Your task to perform on an android device: Open network settings Image 0: 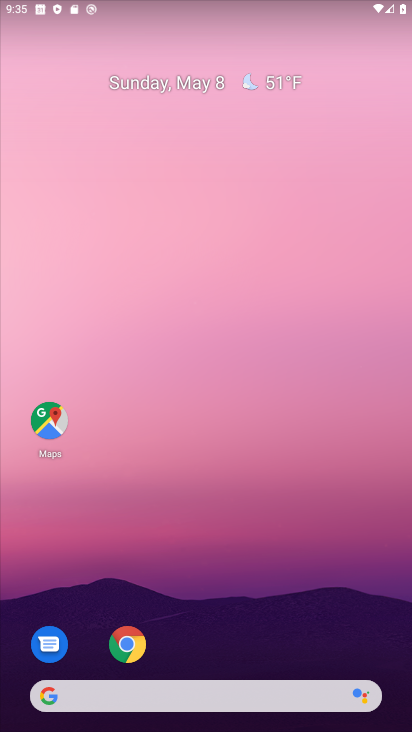
Step 0: drag from (181, 622) to (259, 236)
Your task to perform on an android device: Open network settings Image 1: 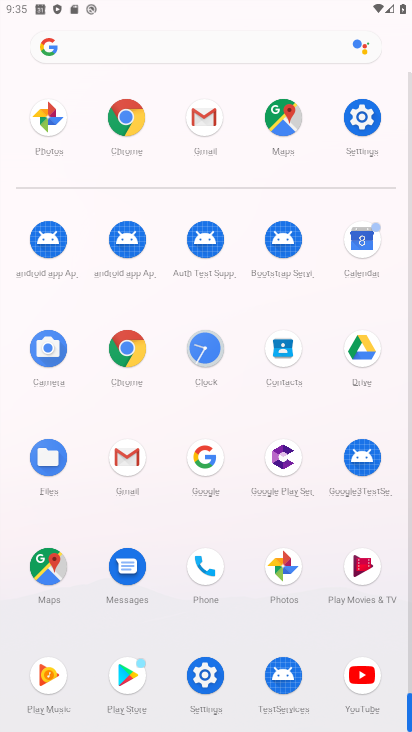
Step 1: click (207, 677)
Your task to perform on an android device: Open network settings Image 2: 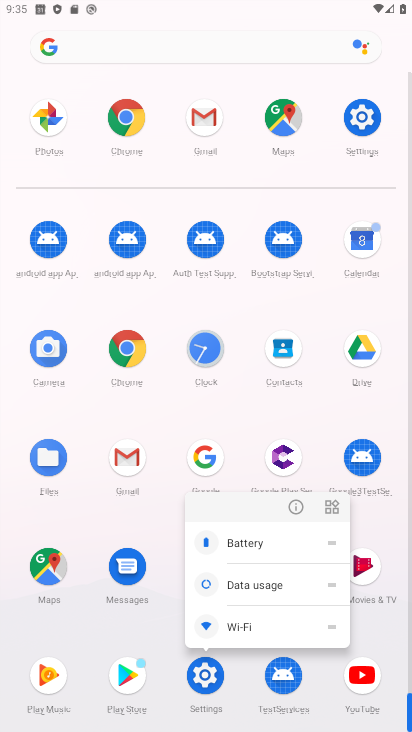
Step 2: click (297, 501)
Your task to perform on an android device: Open network settings Image 3: 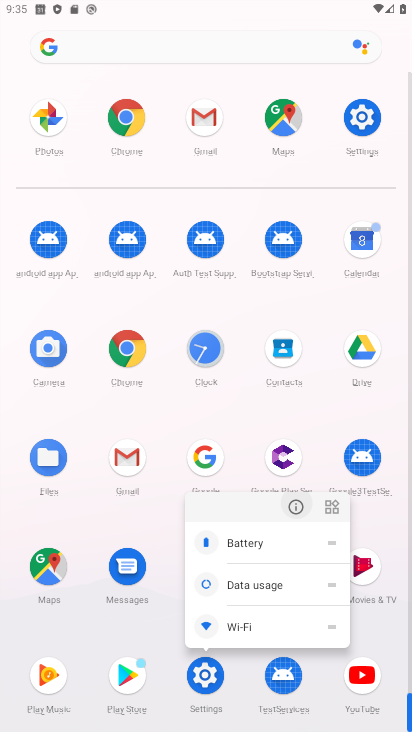
Step 3: click (297, 501)
Your task to perform on an android device: Open network settings Image 4: 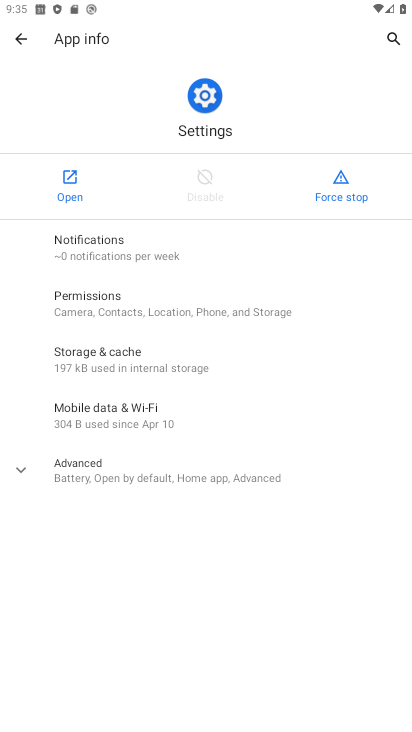
Step 4: click (60, 185)
Your task to perform on an android device: Open network settings Image 5: 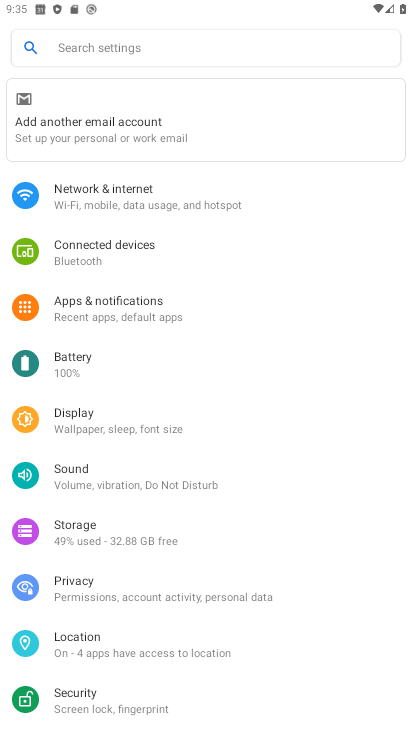
Step 5: click (146, 204)
Your task to perform on an android device: Open network settings Image 6: 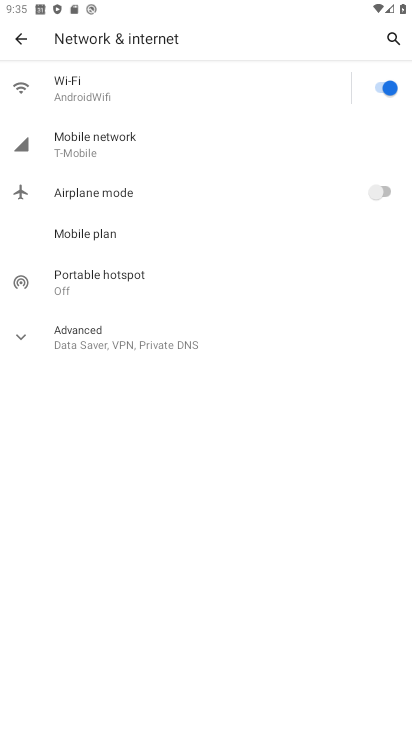
Step 6: click (122, 143)
Your task to perform on an android device: Open network settings Image 7: 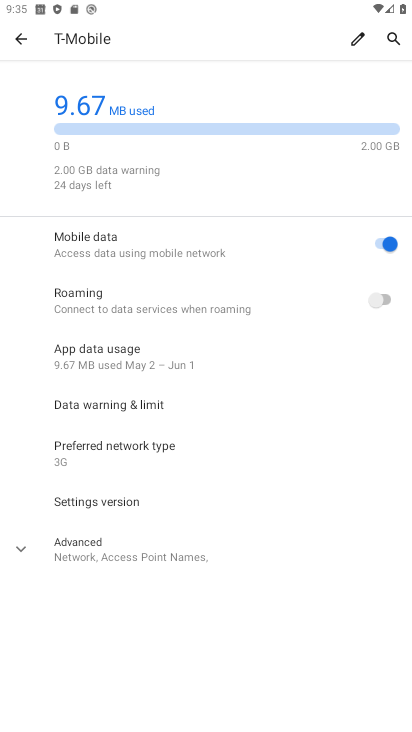
Step 7: task complete